Your task to perform on an android device: Is it going to rain today? Image 0: 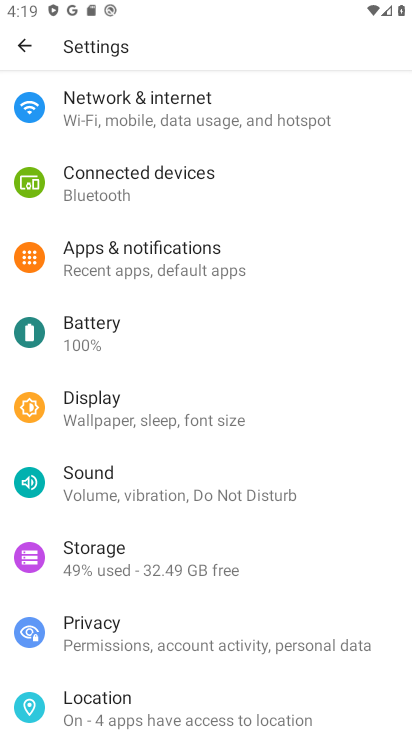
Step 0: press back button
Your task to perform on an android device: Is it going to rain today? Image 1: 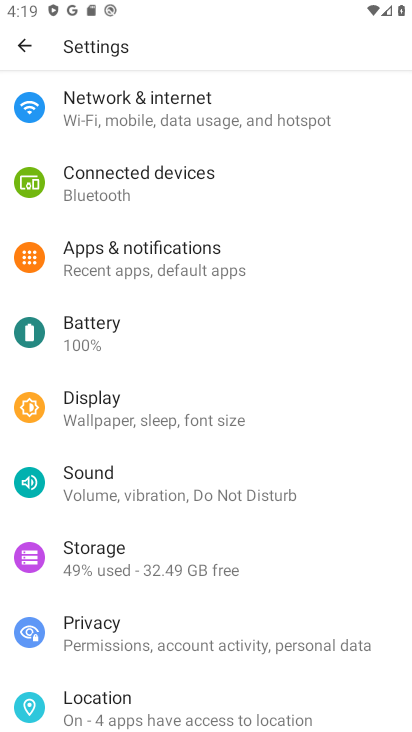
Step 1: press back button
Your task to perform on an android device: Is it going to rain today? Image 2: 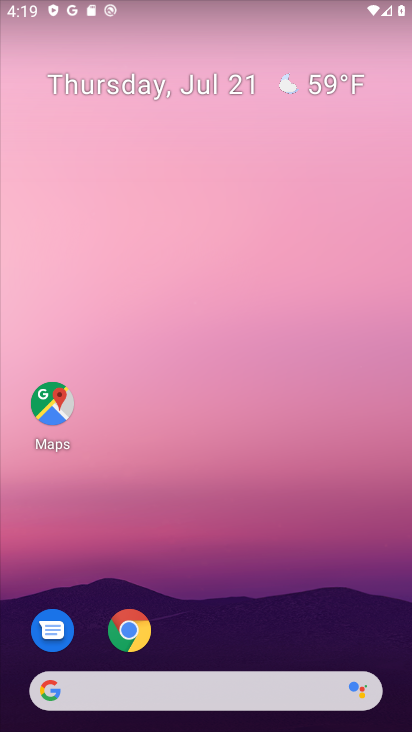
Step 2: drag from (275, 558) to (215, 181)
Your task to perform on an android device: Is it going to rain today? Image 3: 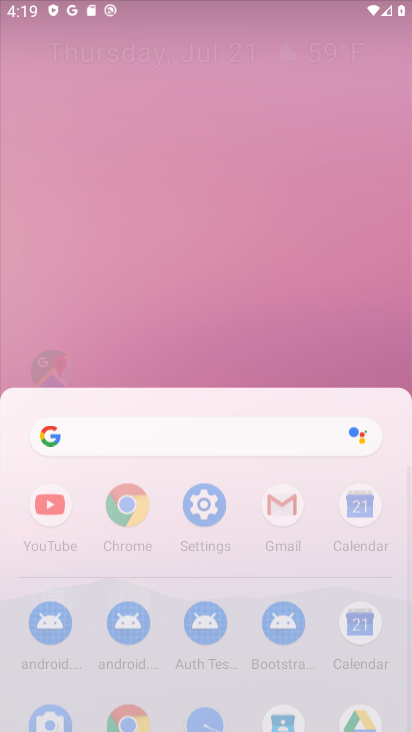
Step 3: drag from (204, 469) to (204, 174)
Your task to perform on an android device: Is it going to rain today? Image 4: 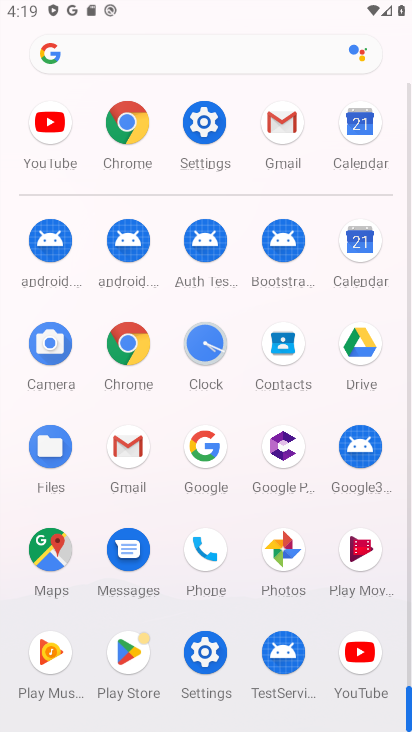
Step 4: click (115, 121)
Your task to perform on an android device: Is it going to rain today? Image 5: 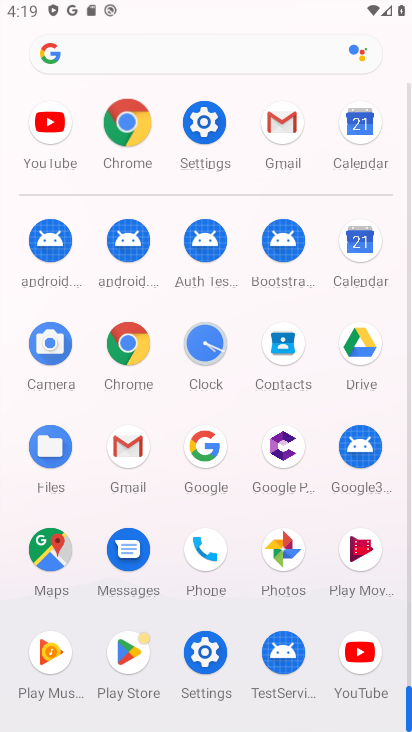
Step 5: click (125, 115)
Your task to perform on an android device: Is it going to rain today? Image 6: 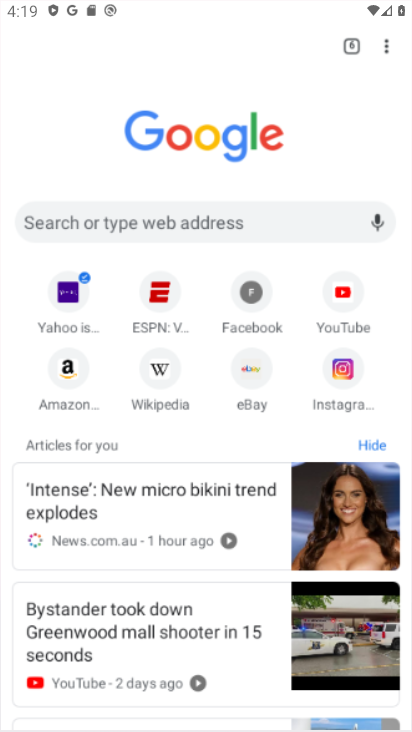
Step 6: click (126, 114)
Your task to perform on an android device: Is it going to rain today? Image 7: 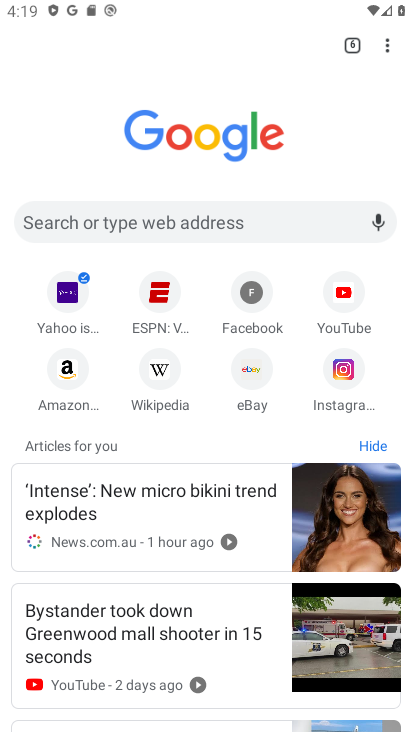
Step 7: click (148, 223)
Your task to perform on an android device: Is it going to rain today? Image 8: 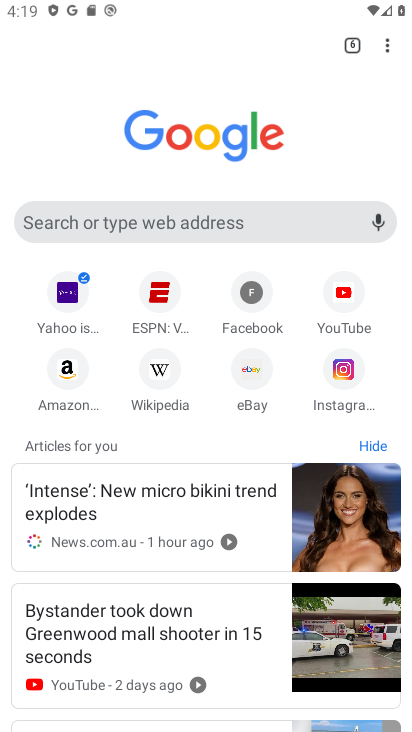
Step 8: click (168, 204)
Your task to perform on an android device: Is it going to rain today? Image 9: 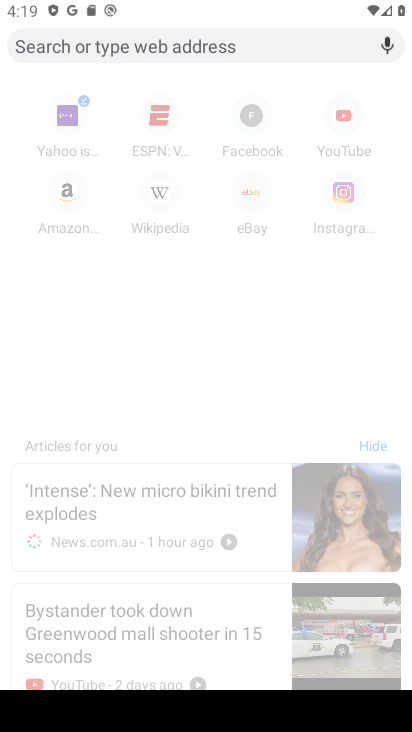
Step 9: type "is it going to today?"
Your task to perform on an android device: Is it going to rain today? Image 10: 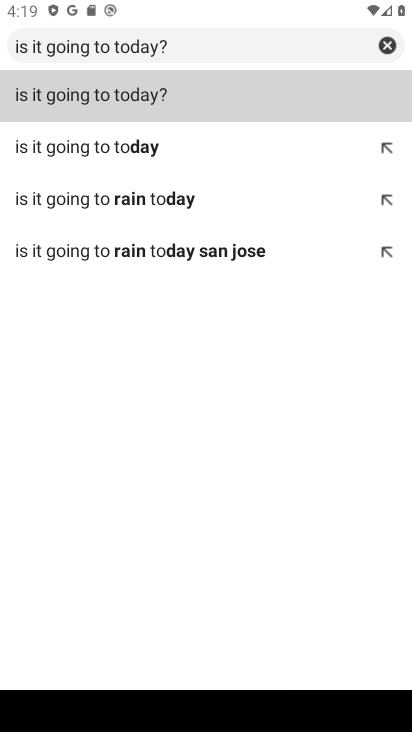
Step 10: click (125, 85)
Your task to perform on an android device: Is it going to rain today? Image 11: 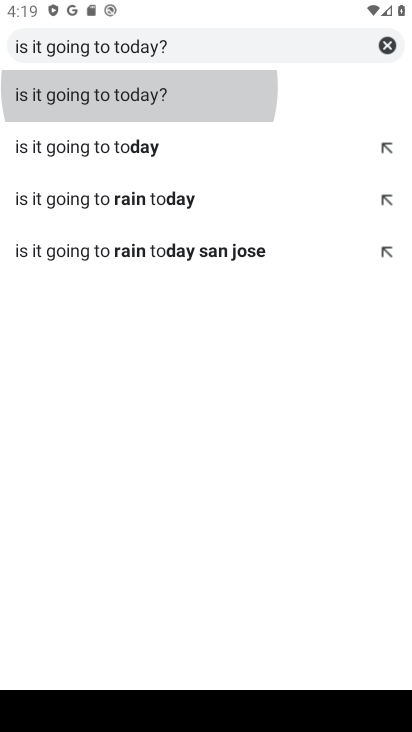
Step 11: click (124, 91)
Your task to perform on an android device: Is it going to rain today? Image 12: 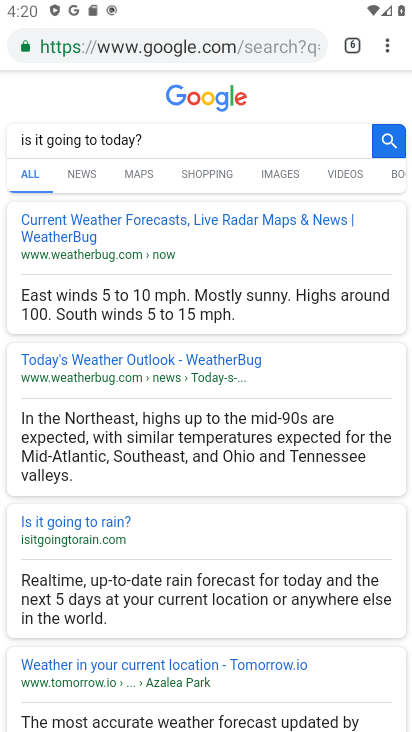
Step 12: task complete